Your task to perform on an android device: Open the calendar app Image 0: 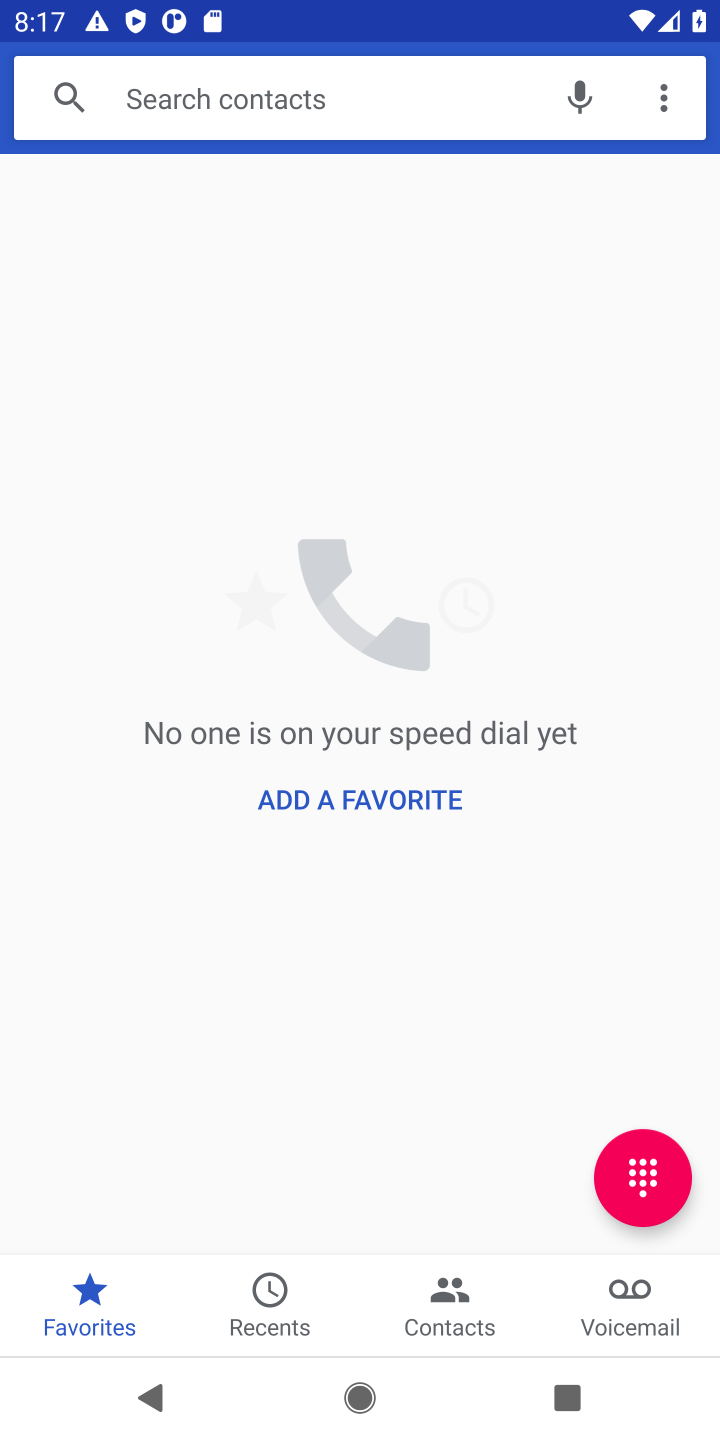
Step 0: press home button
Your task to perform on an android device: Open the calendar app Image 1: 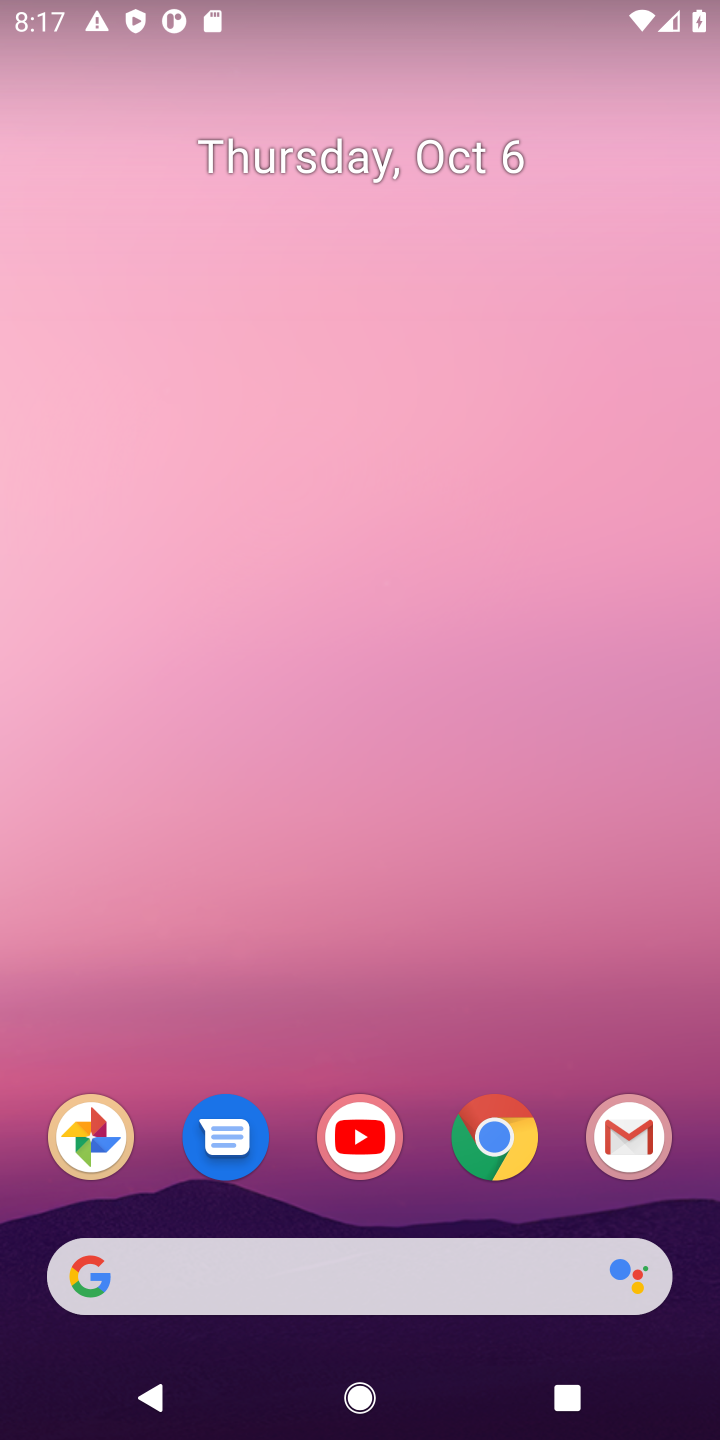
Step 1: drag from (556, 1107) to (516, 57)
Your task to perform on an android device: Open the calendar app Image 2: 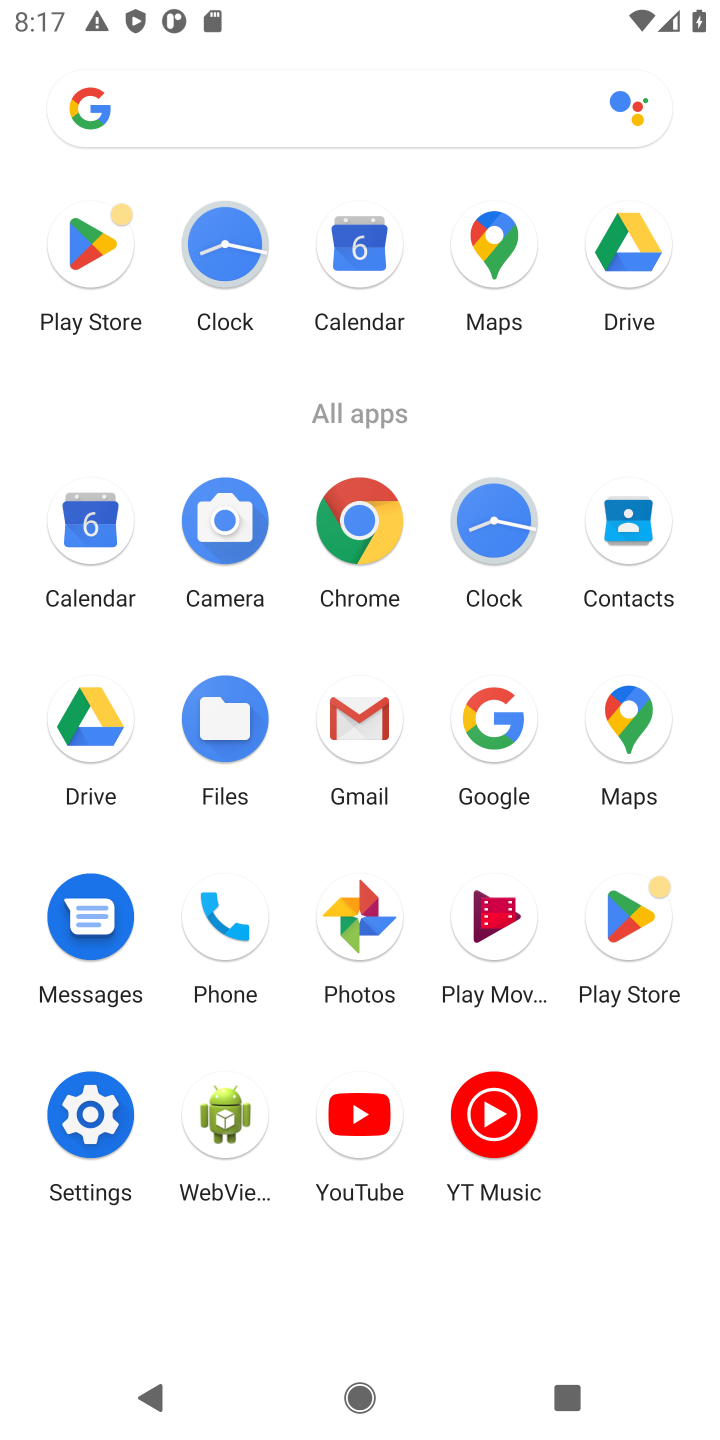
Step 2: click (93, 532)
Your task to perform on an android device: Open the calendar app Image 3: 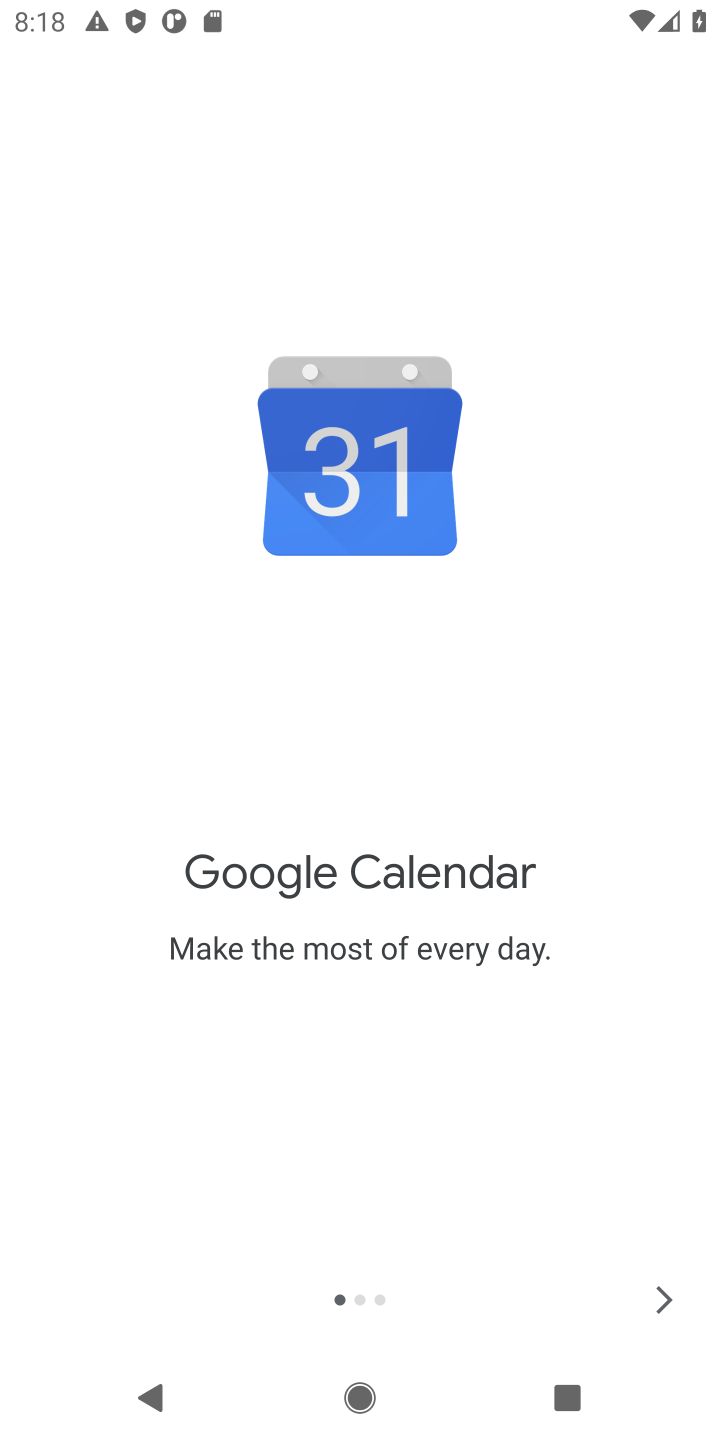
Step 3: click (652, 1306)
Your task to perform on an android device: Open the calendar app Image 4: 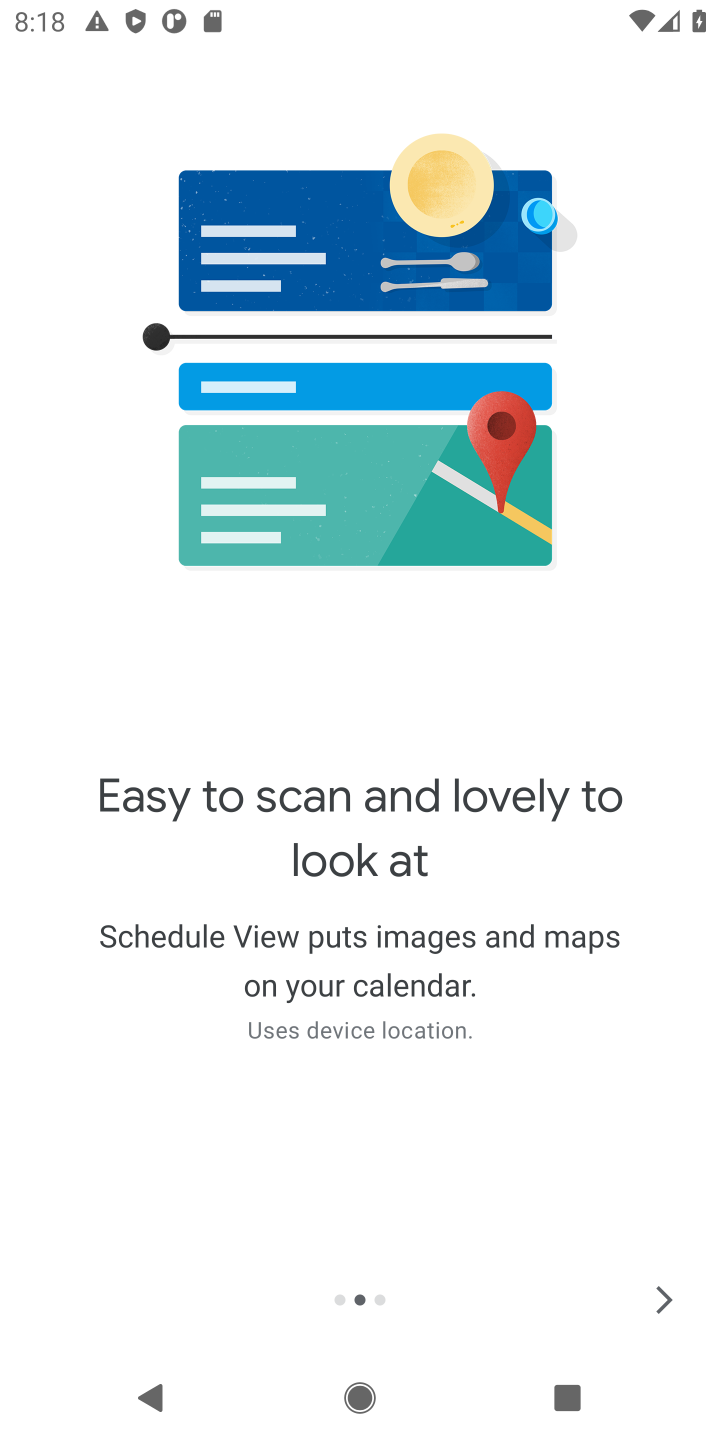
Step 4: click (652, 1306)
Your task to perform on an android device: Open the calendar app Image 5: 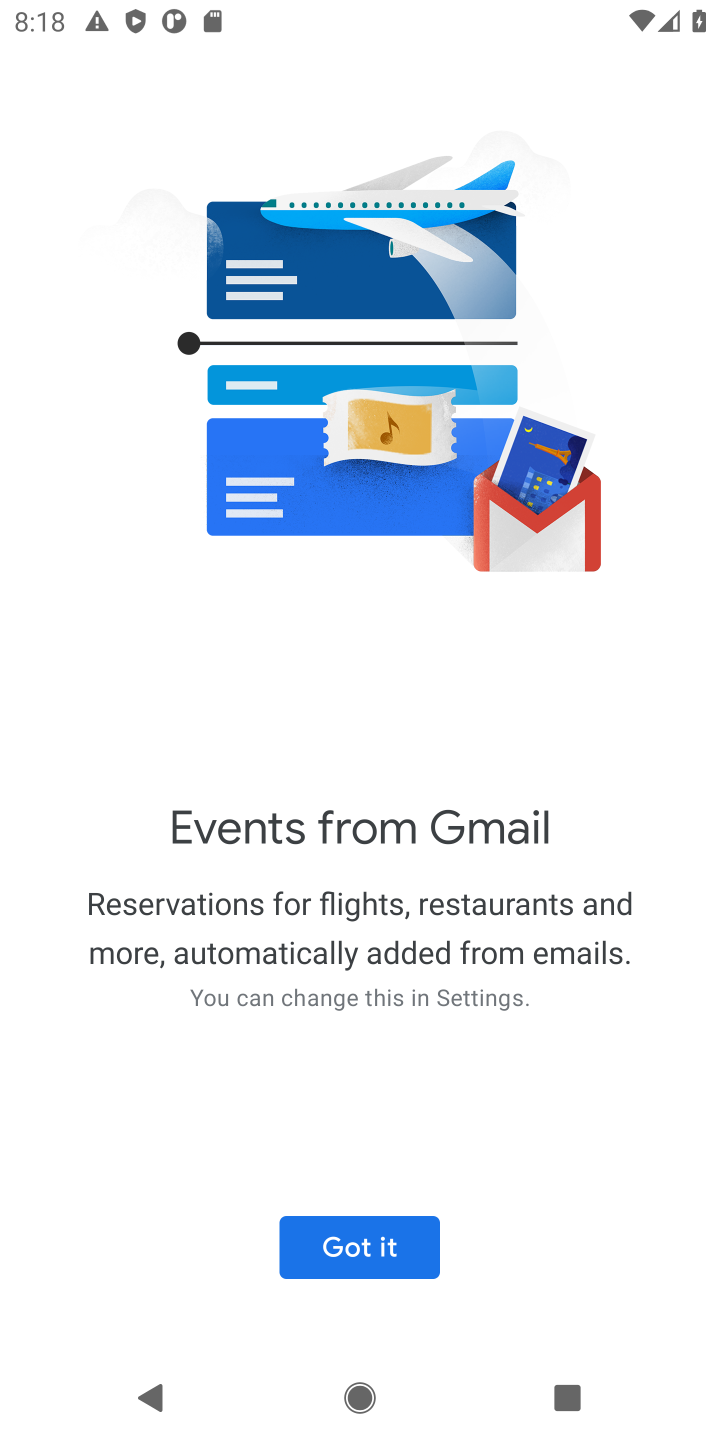
Step 5: click (387, 1254)
Your task to perform on an android device: Open the calendar app Image 6: 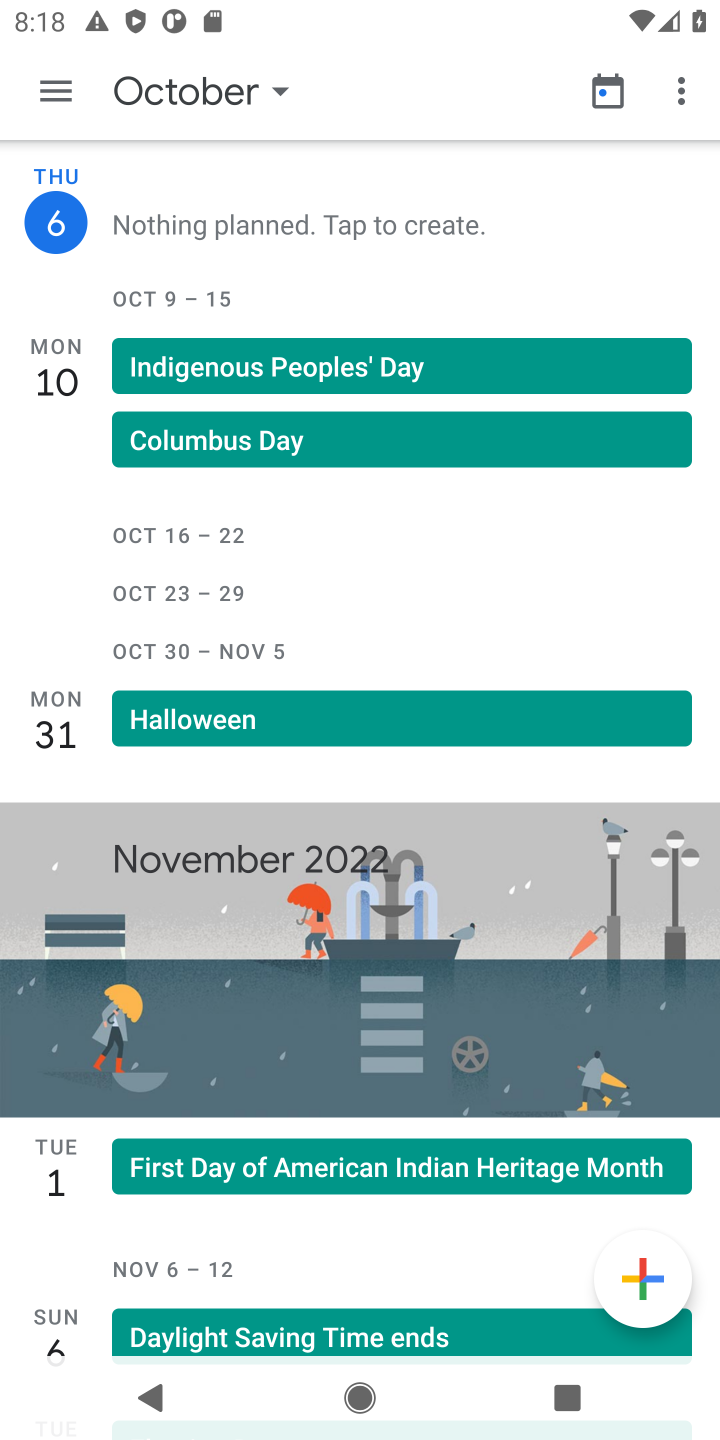
Step 6: task complete